Your task to perform on an android device: change keyboard looks Image 0: 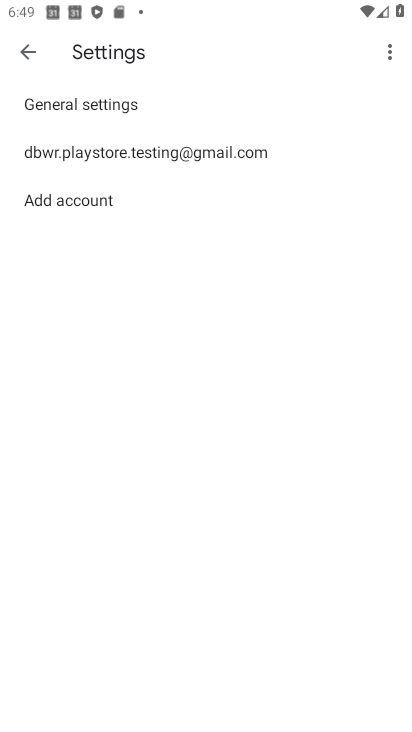
Step 0: press home button
Your task to perform on an android device: change keyboard looks Image 1: 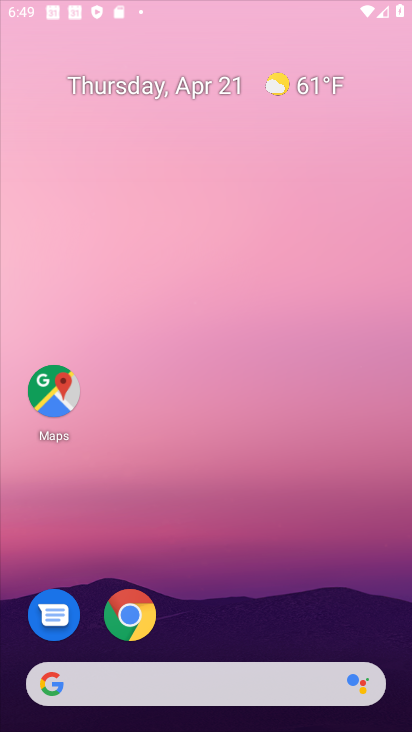
Step 1: drag from (236, 191) to (195, 31)
Your task to perform on an android device: change keyboard looks Image 2: 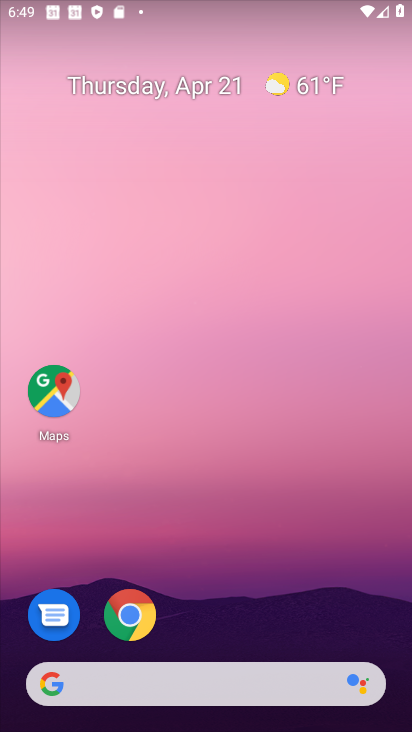
Step 2: drag from (210, 594) to (283, 72)
Your task to perform on an android device: change keyboard looks Image 3: 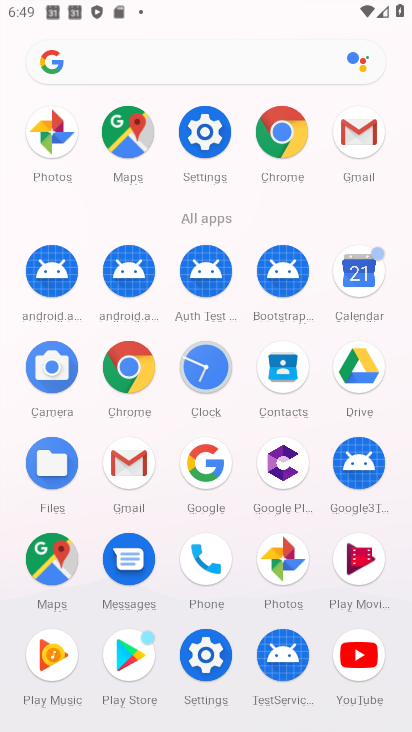
Step 3: click (193, 662)
Your task to perform on an android device: change keyboard looks Image 4: 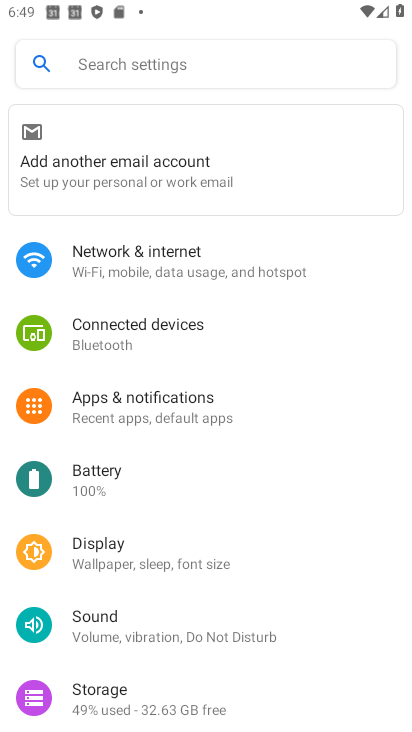
Step 4: drag from (224, 613) to (353, 14)
Your task to perform on an android device: change keyboard looks Image 5: 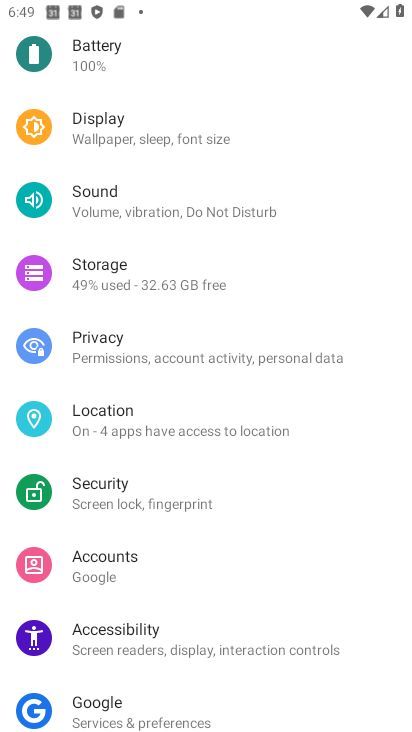
Step 5: drag from (196, 543) to (298, 144)
Your task to perform on an android device: change keyboard looks Image 6: 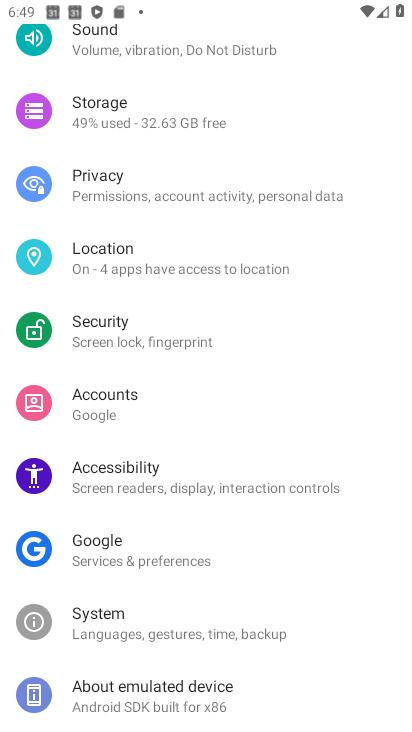
Step 6: click (133, 629)
Your task to perform on an android device: change keyboard looks Image 7: 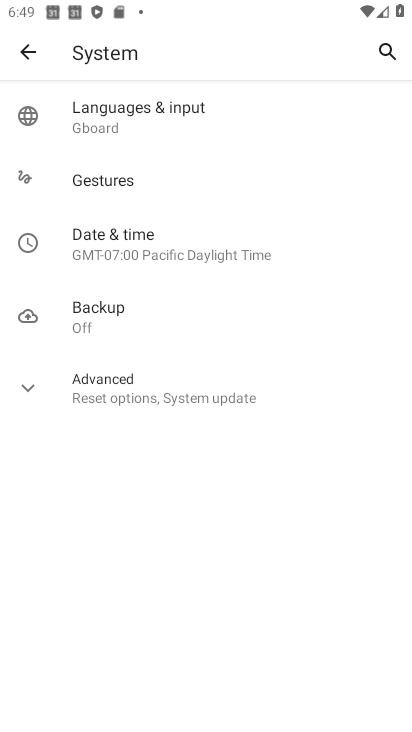
Step 7: click (158, 127)
Your task to perform on an android device: change keyboard looks Image 8: 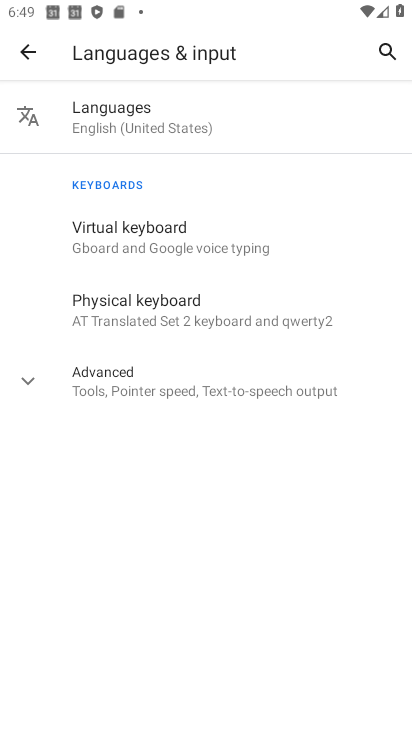
Step 8: click (125, 231)
Your task to perform on an android device: change keyboard looks Image 9: 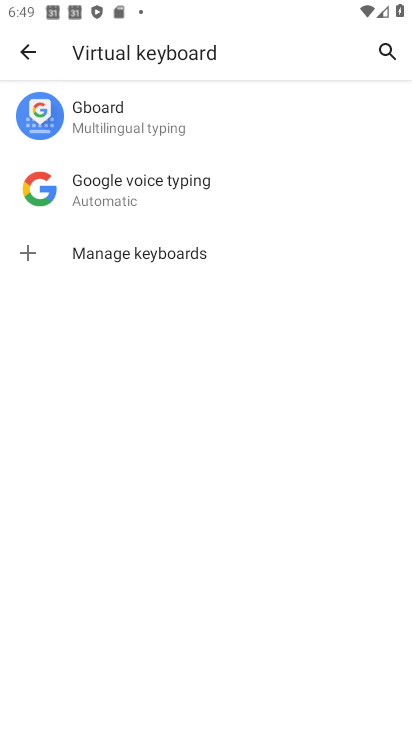
Step 9: click (172, 127)
Your task to perform on an android device: change keyboard looks Image 10: 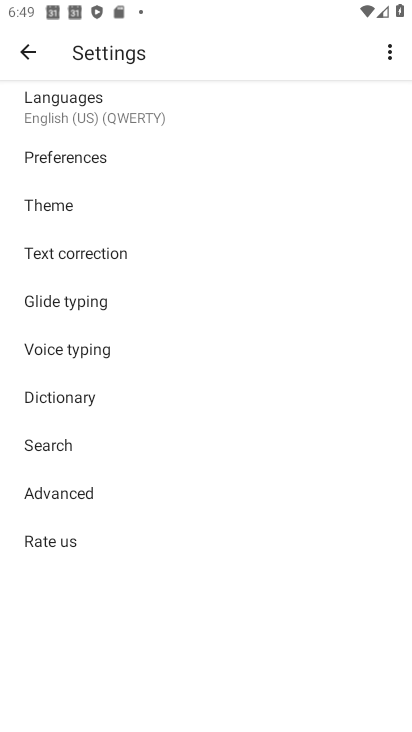
Step 10: click (96, 215)
Your task to perform on an android device: change keyboard looks Image 11: 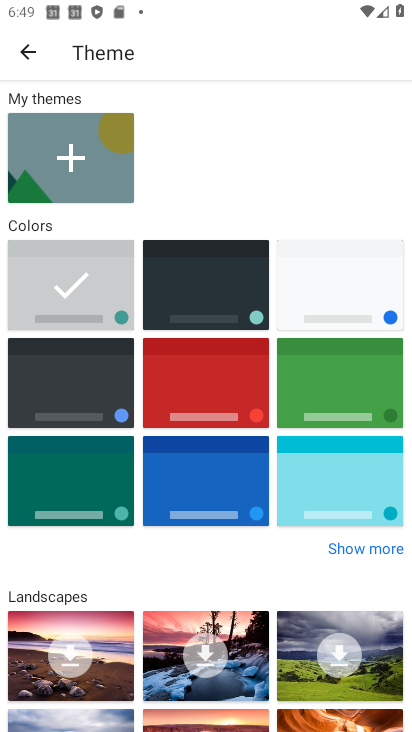
Step 11: click (69, 369)
Your task to perform on an android device: change keyboard looks Image 12: 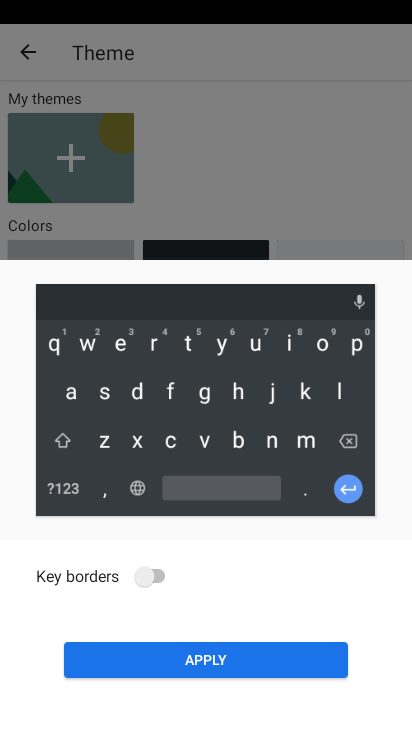
Step 12: click (216, 656)
Your task to perform on an android device: change keyboard looks Image 13: 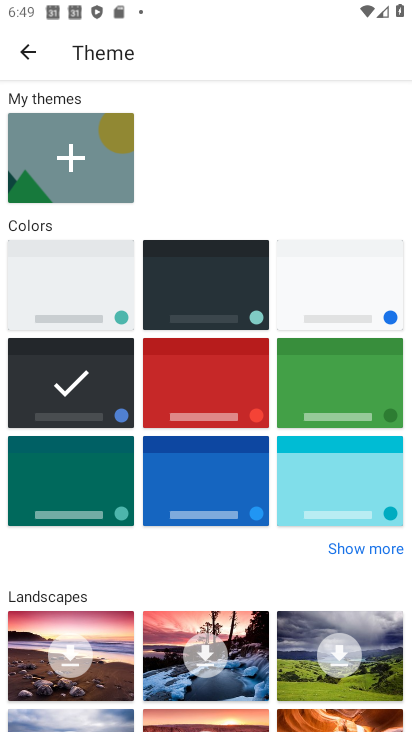
Step 13: task complete